Your task to perform on an android device: Open the web browser Image 0: 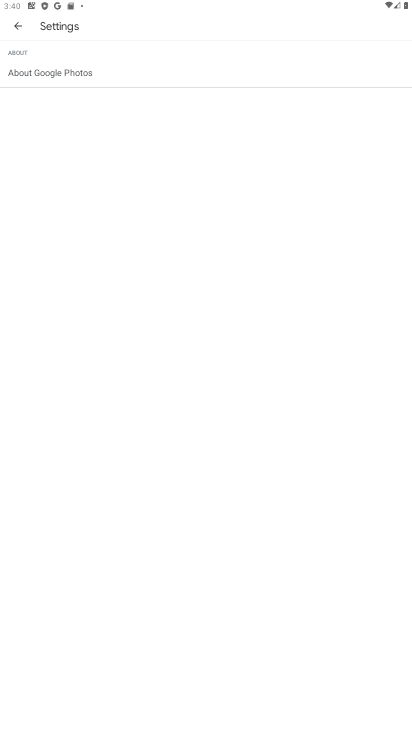
Step 0: press home button
Your task to perform on an android device: Open the web browser Image 1: 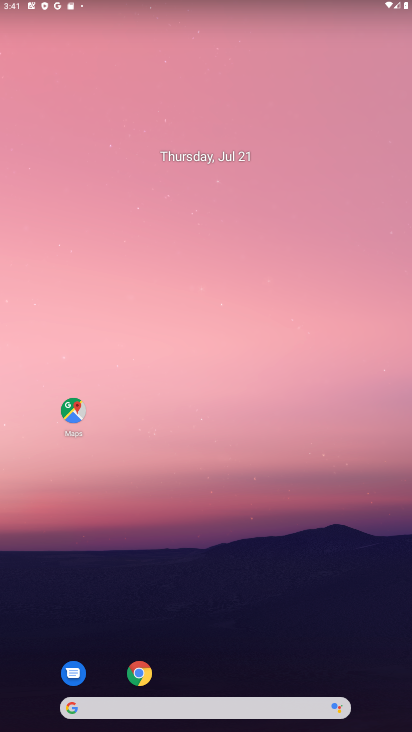
Step 1: drag from (178, 688) to (183, 263)
Your task to perform on an android device: Open the web browser Image 2: 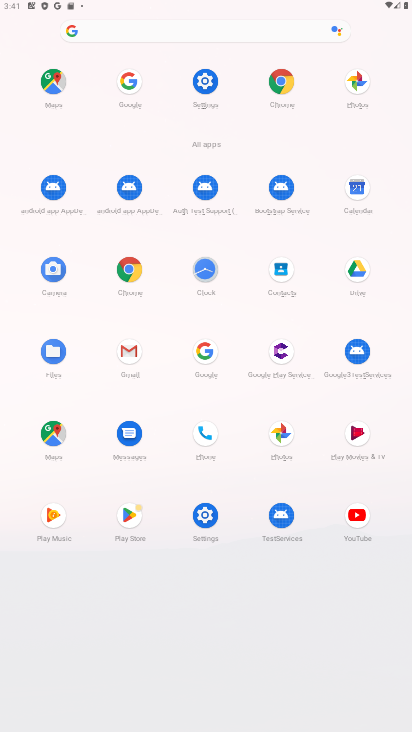
Step 2: click (272, 80)
Your task to perform on an android device: Open the web browser Image 3: 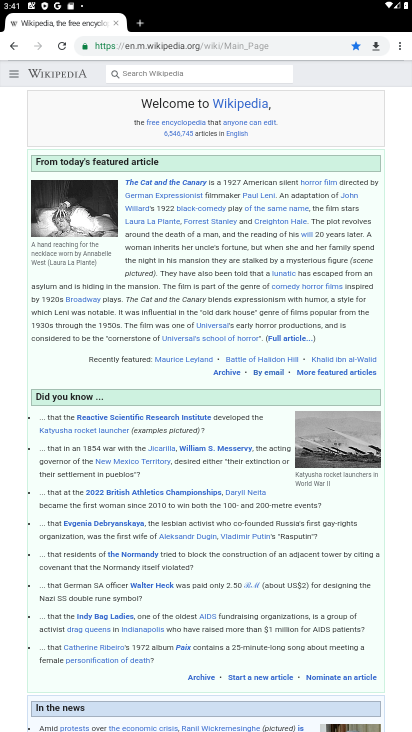
Step 3: task complete